Your task to perform on an android device: toggle javascript in the chrome app Image 0: 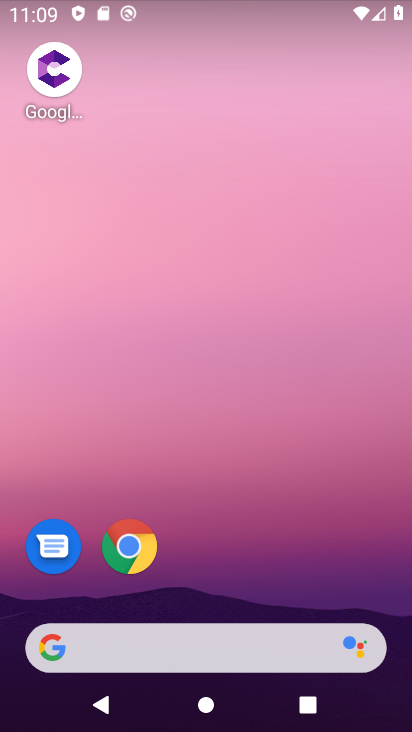
Step 0: drag from (394, 634) to (225, 37)
Your task to perform on an android device: toggle javascript in the chrome app Image 1: 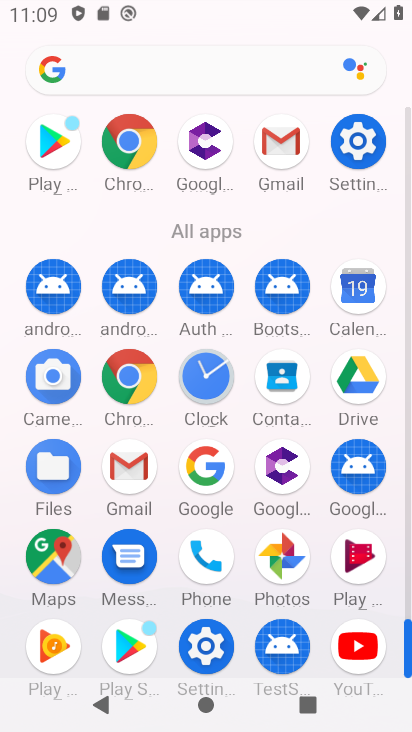
Step 1: click (128, 135)
Your task to perform on an android device: toggle javascript in the chrome app Image 2: 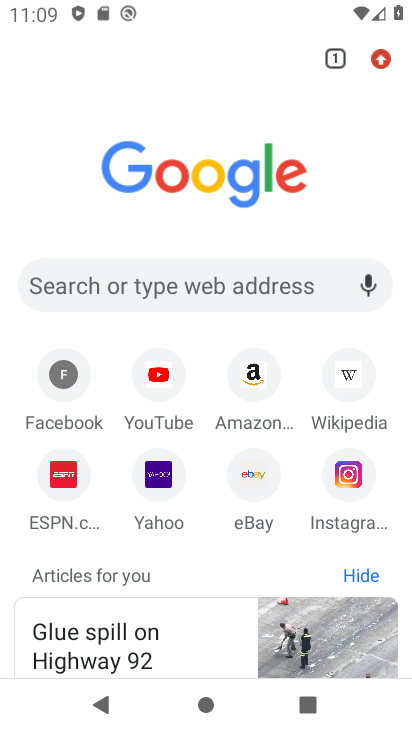
Step 2: drag from (382, 58) to (236, 563)
Your task to perform on an android device: toggle javascript in the chrome app Image 3: 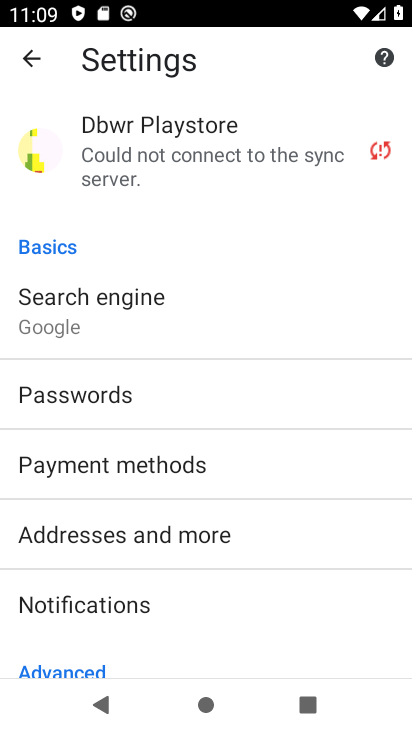
Step 3: drag from (275, 566) to (239, 95)
Your task to perform on an android device: toggle javascript in the chrome app Image 4: 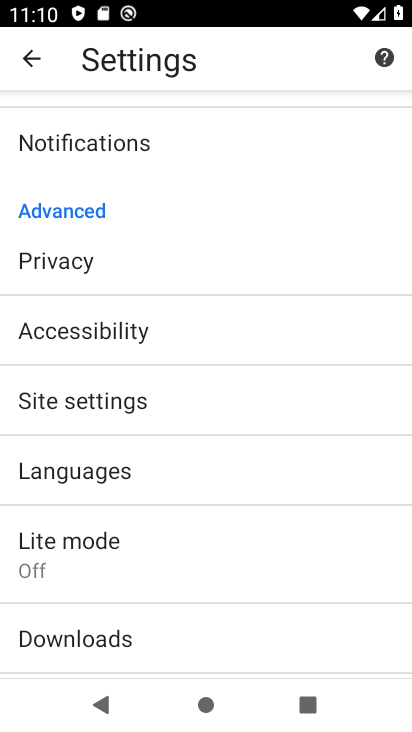
Step 4: drag from (246, 506) to (246, 257)
Your task to perform on an android device: toggle javascript in the chrome app Image 5: 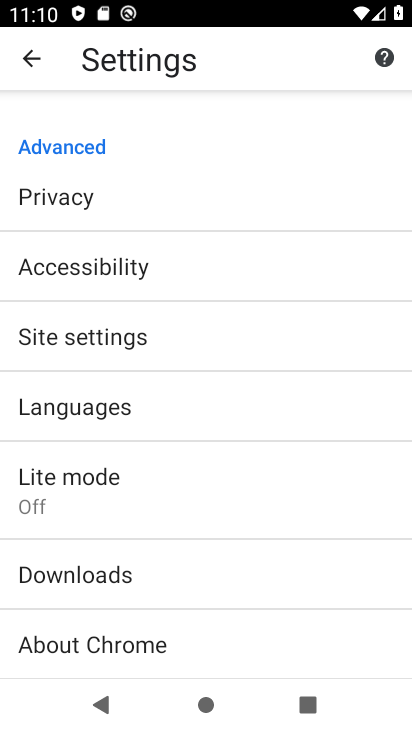
Step 5: click (101, 335)
Your task to perform on an android device: toggle javascript in the chrome app Image 6: 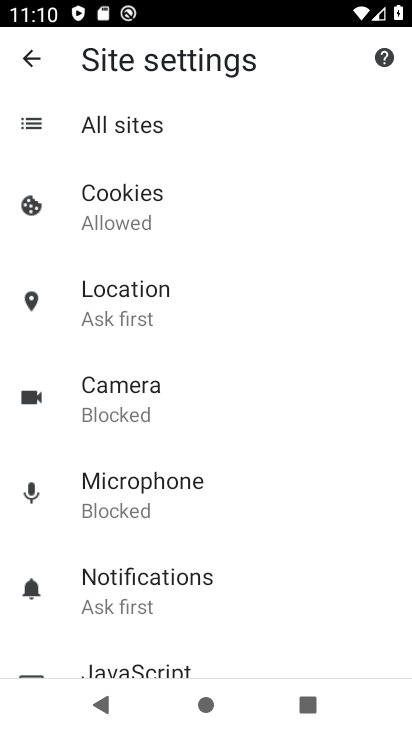
Step 6: drag from (252, 531) to (252, 206)
Your task to perform on an android device: toggle javascript in the chrome app Image 7: 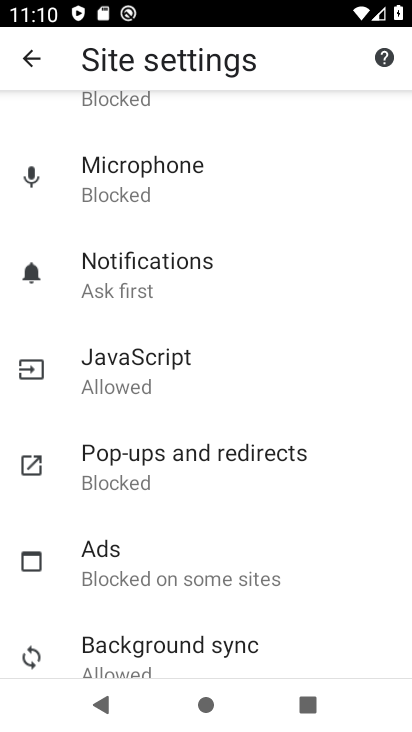
Step 7: click (133, 373)
Your task to perform on an android device: toggle javascript in the chrome app Image 8: 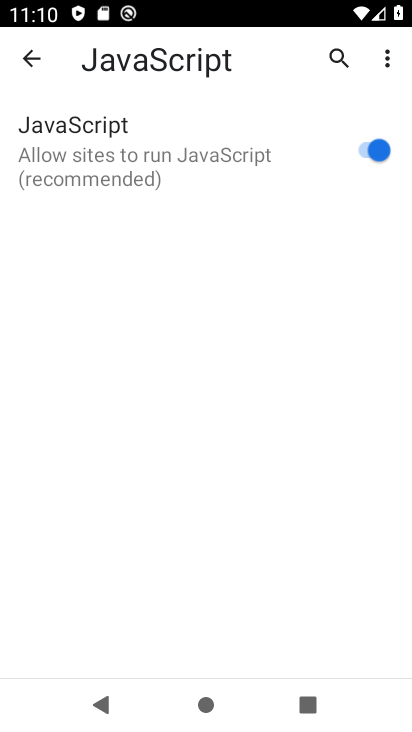
Step 8: click (357, 149)
Your task to perform on an android device: toggle javascript in the chrome app Image 9: 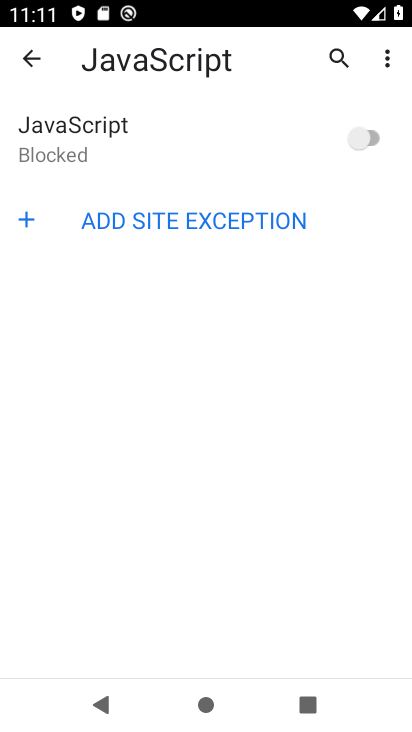
Step 9: task complete